Your task to perform on an android device: Open maps Image 0: 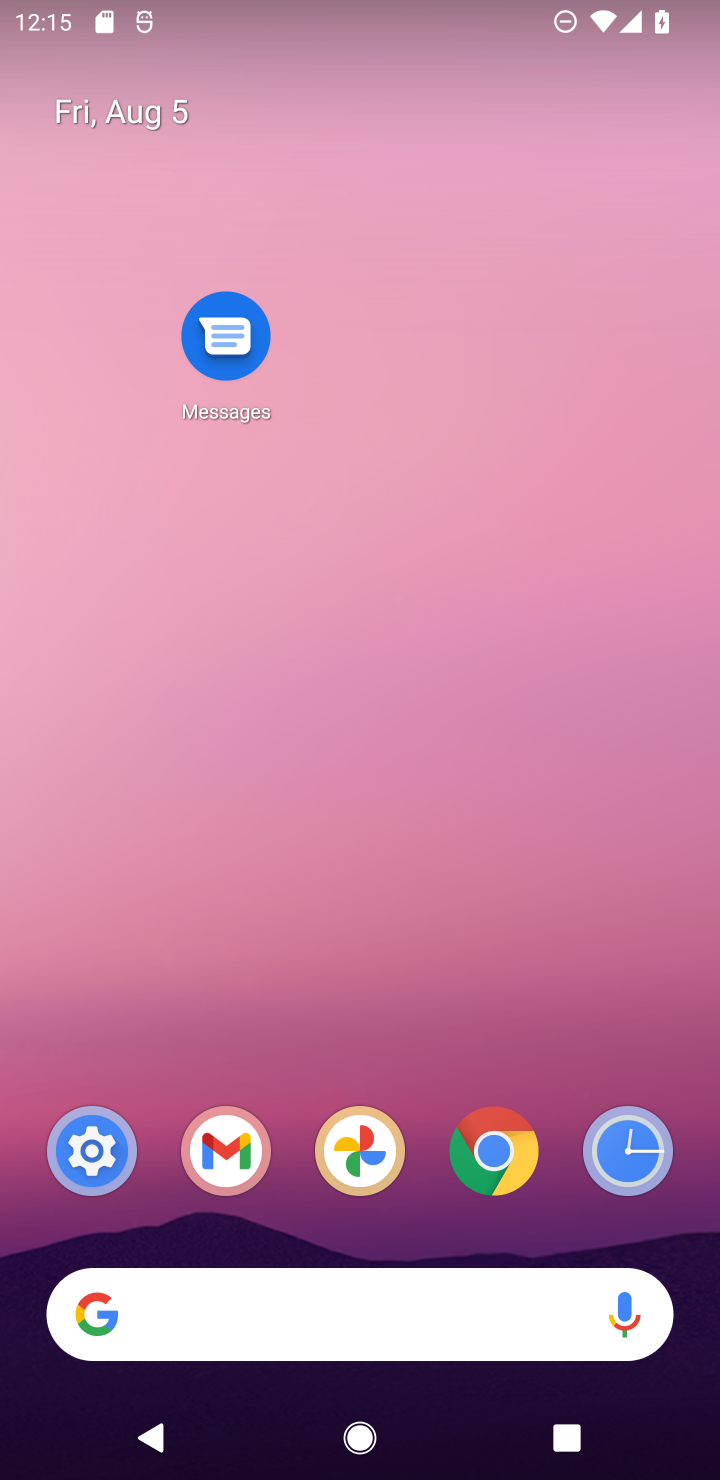
Step 0: drag from (379, 1102) to (368, 365)
Your task to perform on an android device: Open maps Image 1: 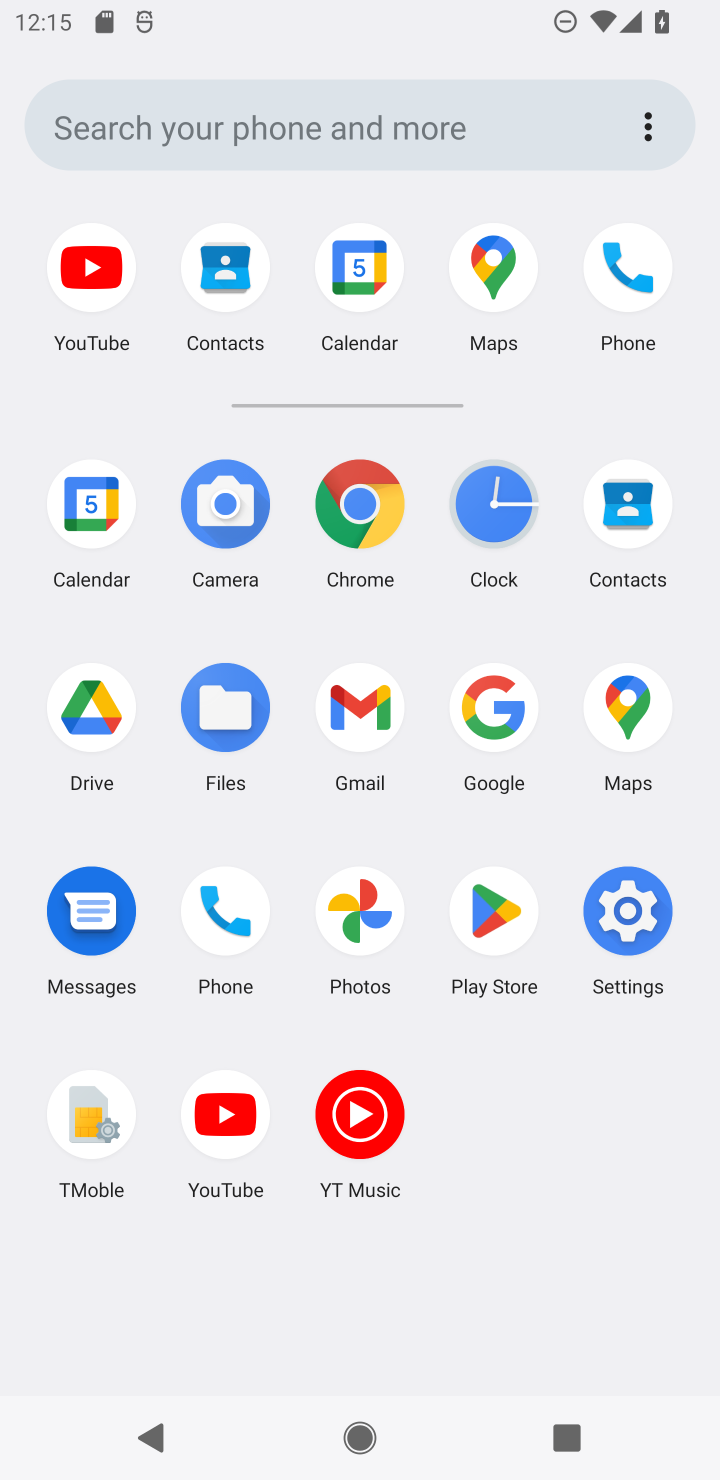
Step 1: click (503, 279)
Your task to perform on an android device: Open maps Image 2: 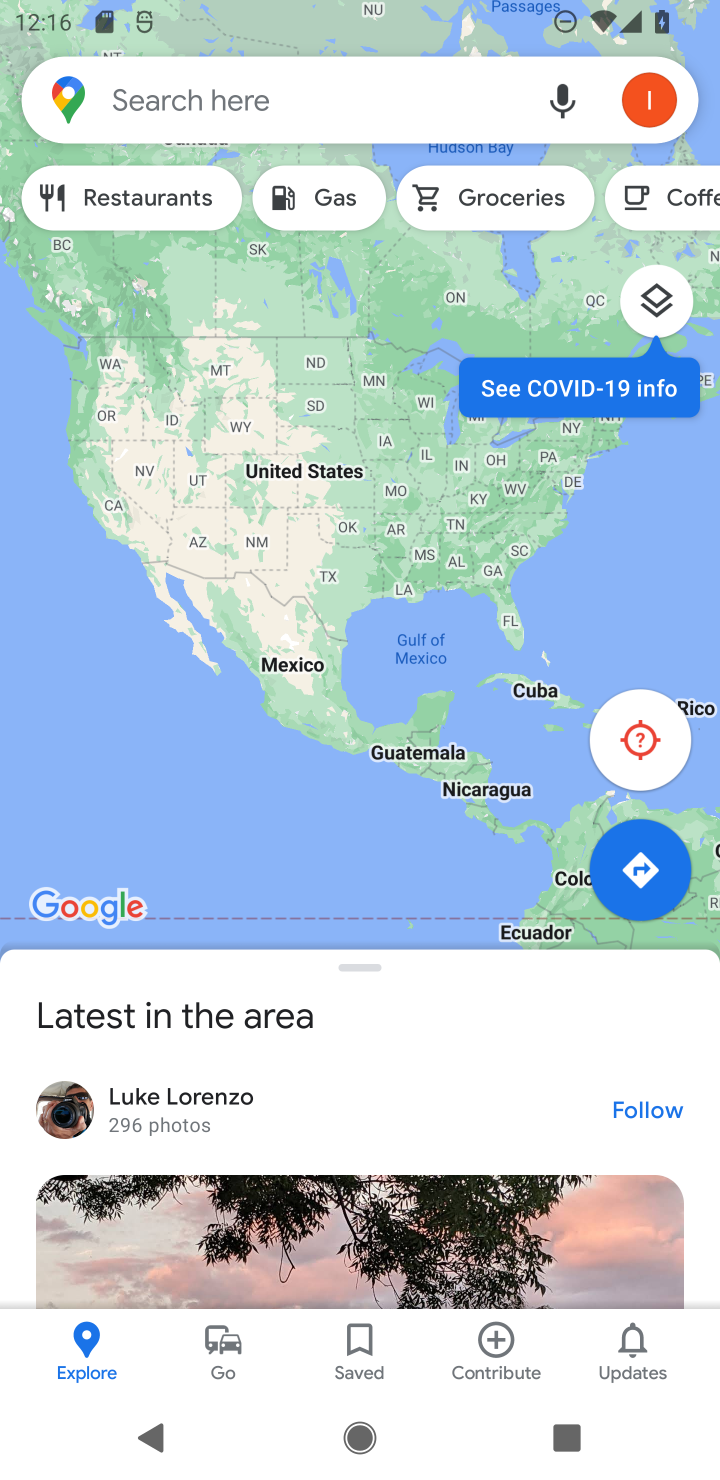
Step 2: task complete